Your task to perform on an android device: Open Google Maps Image 0: 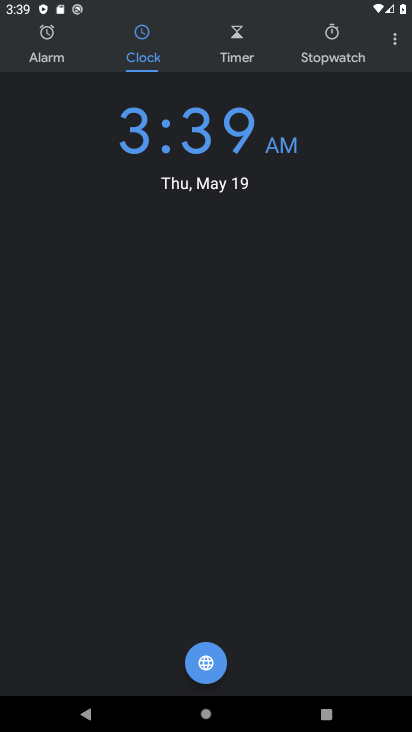
Step 0: press home button
Your task to perform on an android device: Open Google Maps Image 1: 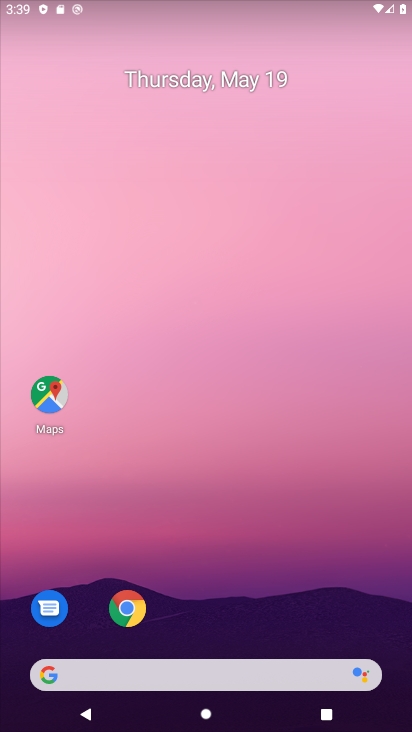
Step 1: drag from (230, 701) to (235, 334)
Your task to perform on an android device: Open Google Maps Image 2: 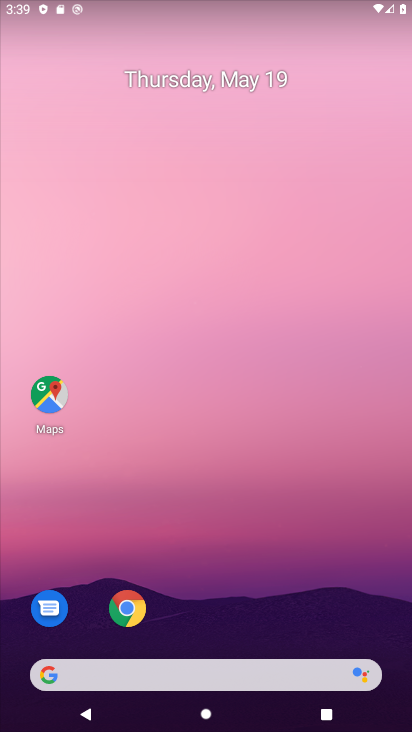
Step 2: drag from (225, 687) to (226, 118)
Your task to perform on an android device: Open Google Maps Image 3: 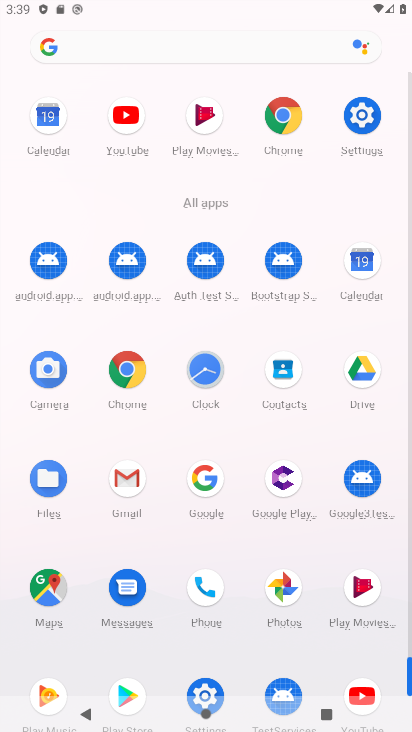
Step 3: click (52, 590)
Your task to perform on an android device: Open Google Maps Image 4: 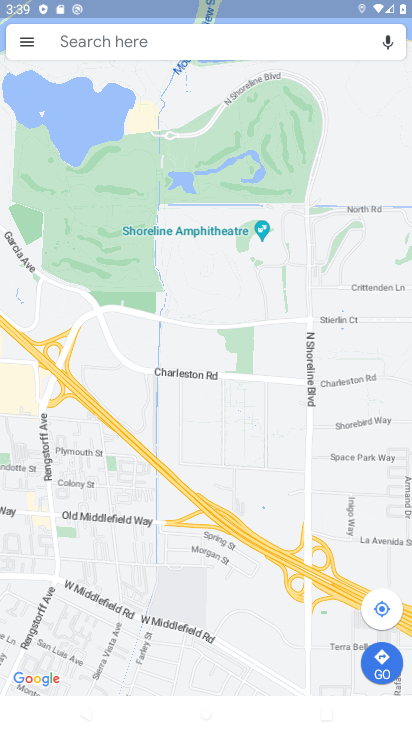
Step 4: task complete